Your task to perform on an android device: Open accessibility settings Image 0: 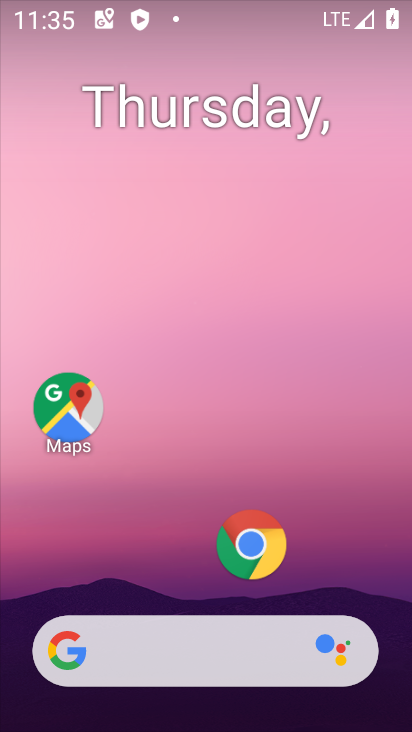
Step 0: drag from (209, 609) to (264, 27)
Your task to perform on an android device: Open accessibility settings Image 1: 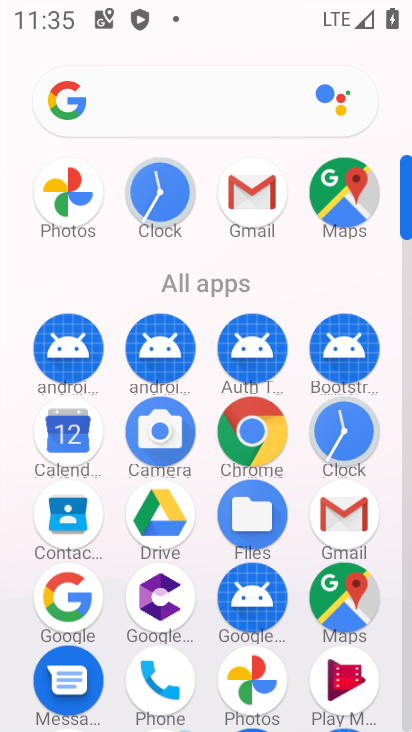
Step 1: drag from (113, 580) to (138, 69)
Your task to perform on an android device: Open accessibility settings Image 2: 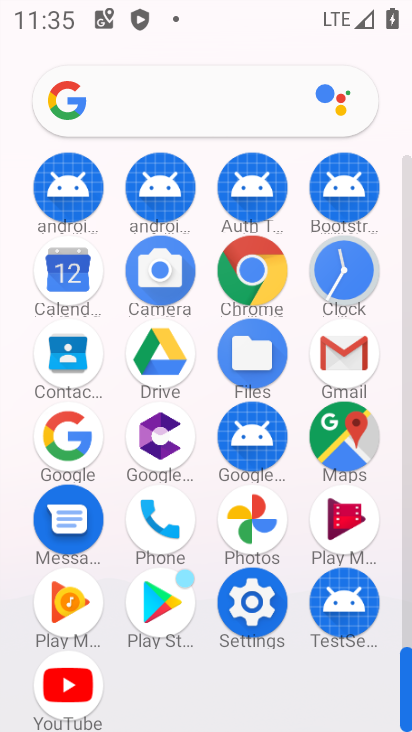
Step 2: click (264, 617)
Your task to perform on an android device: Open accessibility settings Image 3: 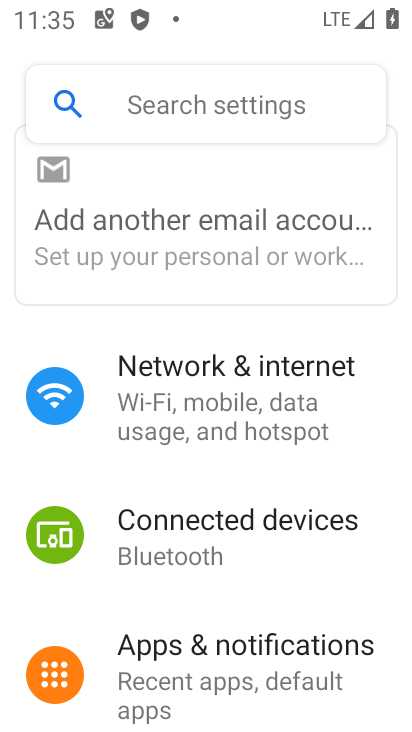
Step 3: drag from (264, 617) to (92, 7)
Your task to perform on an android device: Open accessibility settings Image 4: 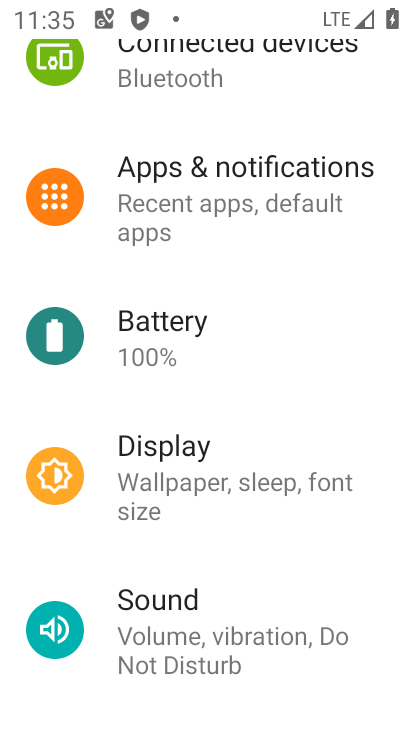
Step 4: drag from (116, 544) to (123, 1)
Your task to perform on an android device: Open accessibility settings Image 5: 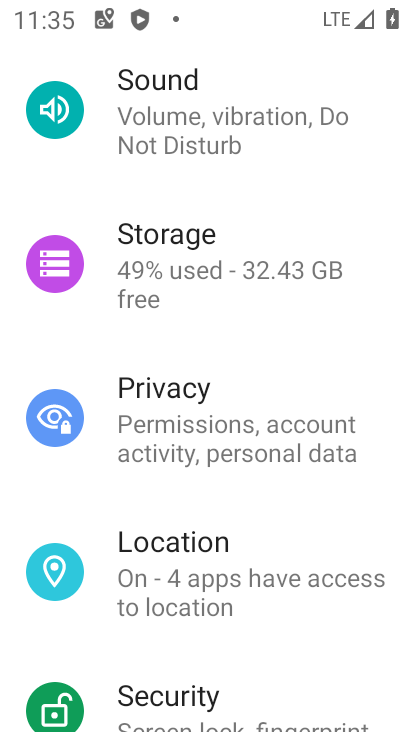
Step 5: drag from (151, 646) to (157, 157)
Your task to perform on an android device: Open accessibility settings Image 6: 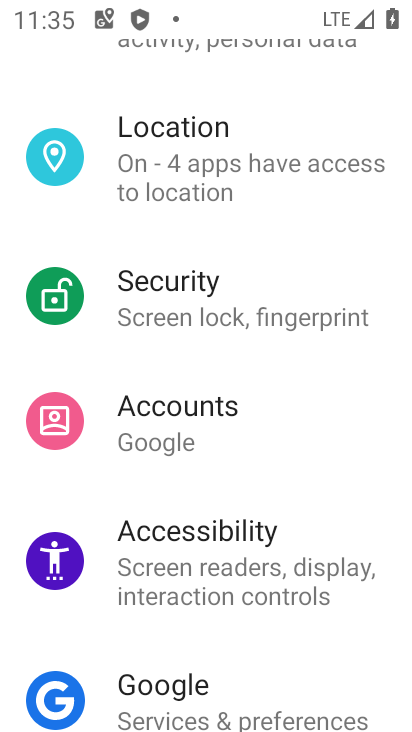
Step 6: click (149, 543)
Your task to perform on an android device: Open accessibility settings Image 7: 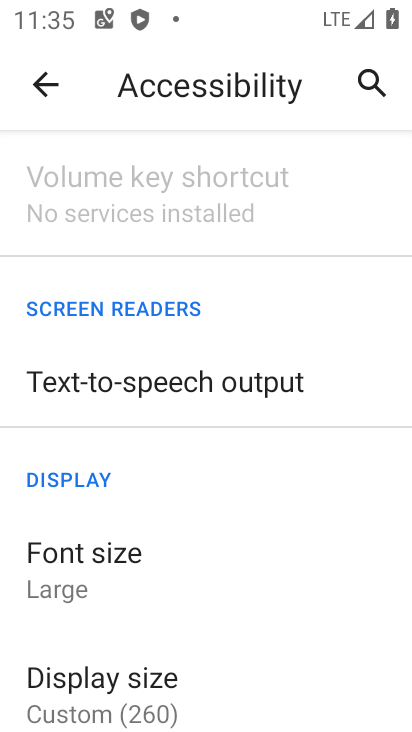
Step 7: task complete